Your task to perform on an android device: turn on improve location accuracy Image 0: 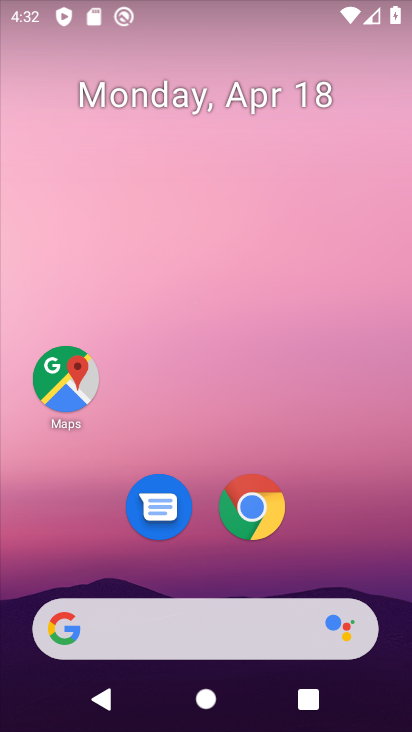
Step 0: drag from (361, 498) to (407, 126)
Your task to perform on an android device: turn on improve location accuracy Image 1: 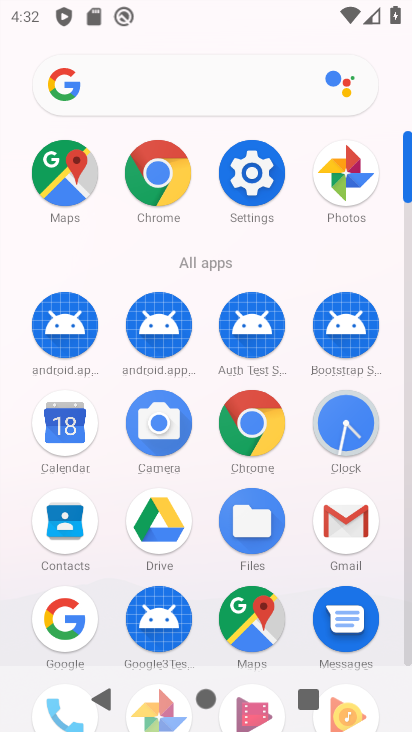
Step 1: drag from (289, 544) to (329, 171)
Your task to perform on an android device: turn on improve location accuracy Image 2: 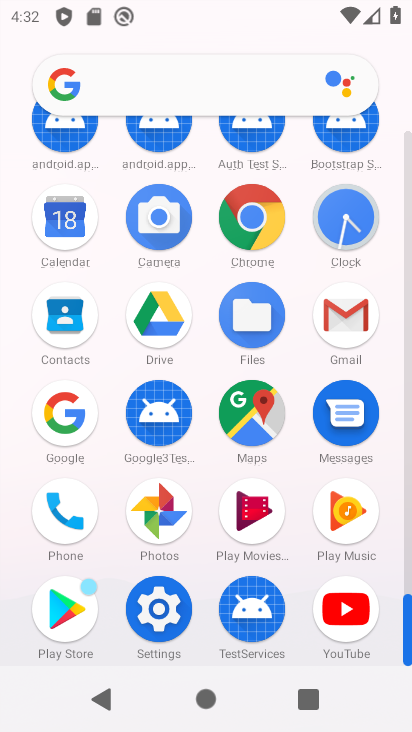
Step 2: click (169, 607)
Your task to perform on an android device: turn on improve location accuracy Image 3: 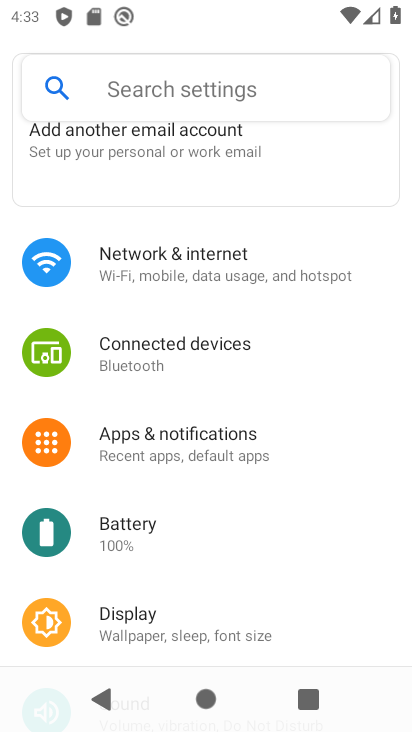
Step 3: drag from (313, 607) to (370, 12)
Your task to perform on an android device: turn on improve location accuracy Image 4: 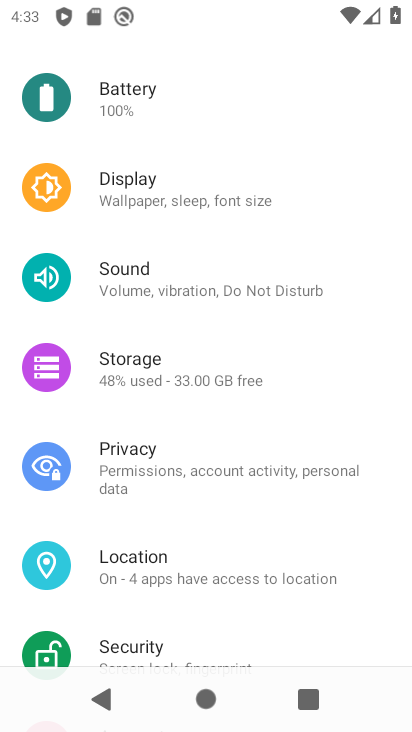
Step 4: click (278, 563)
Your task to perform on an android device: turn on improve location accuracy Image 5: 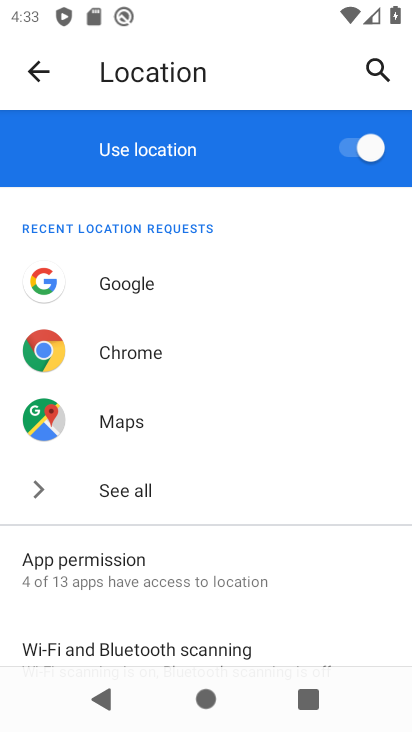
Step 5: drag from (263, 557) to (251, 87)
Your task to perform on an android device: turn on improve location accuracy Image 6: 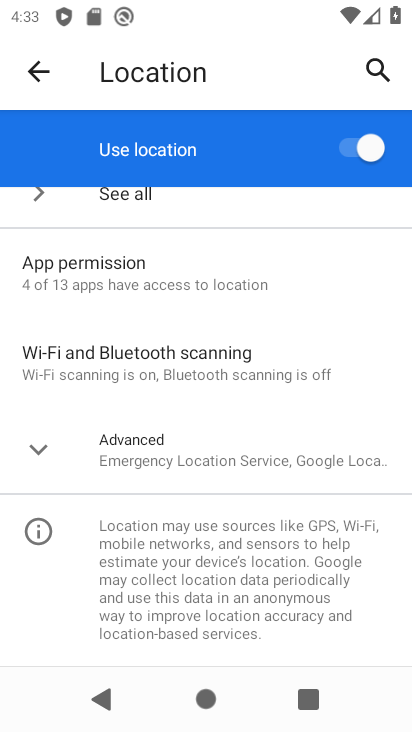
Step 6: click (184, 451)
Your task to perform on an android device: turn on improve location accuracy Image 7: 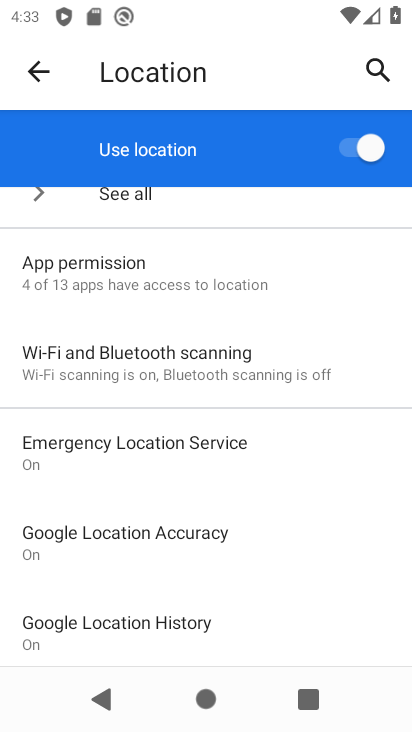
Step 7: click (220, 542)
Your task to perform on an android device: turn on improve location accuracy Image 8: 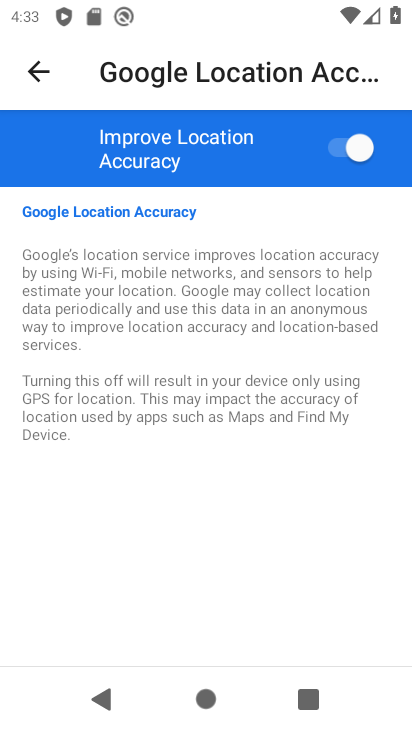
Step 8: task complete